Your task to perform on an android device: see sites visited before in the chrome app Image 0: 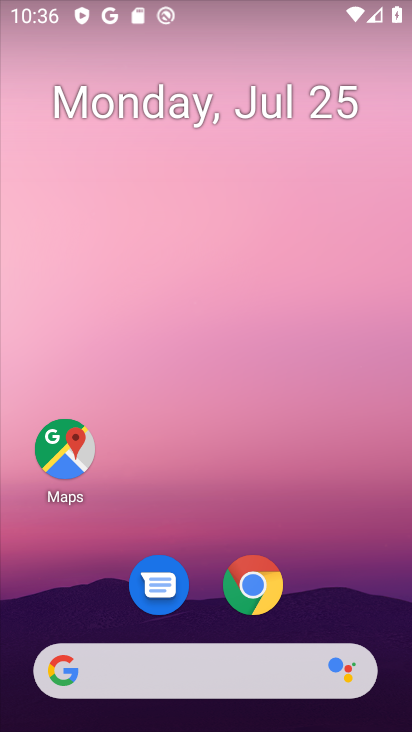
Step 0: click (256, 586)
Your task to perform on an android device: see sites visited before in the chrome app Image 1: 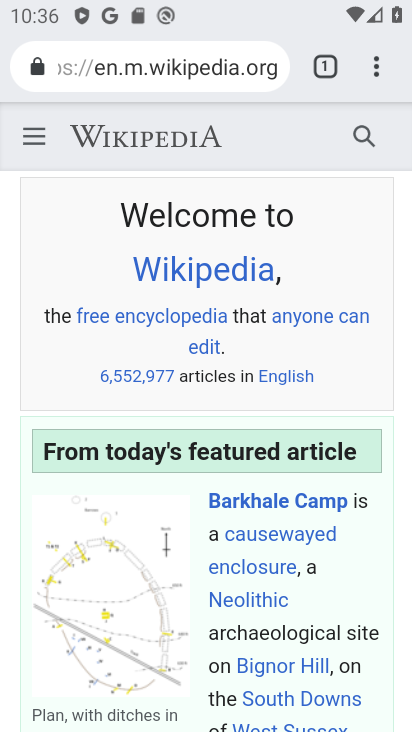
Step 1: click (372, 63)
Your task to perform on an android device: see sites visited before in the chrome app Image 2: 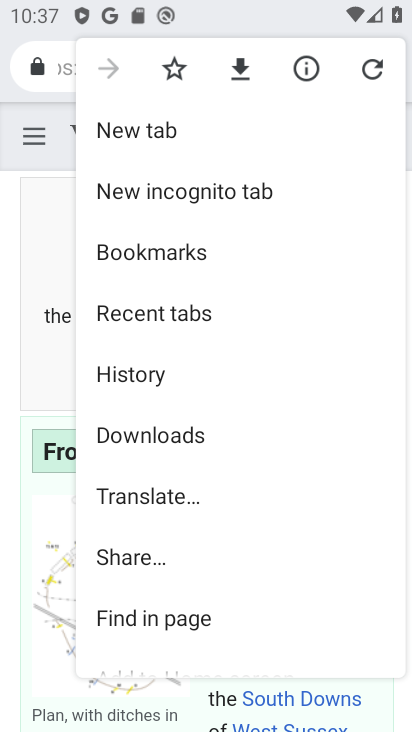
Step 2: click (184, 310)
Your task to perform on an android device: see sites visited before in the chrome app Image 3: 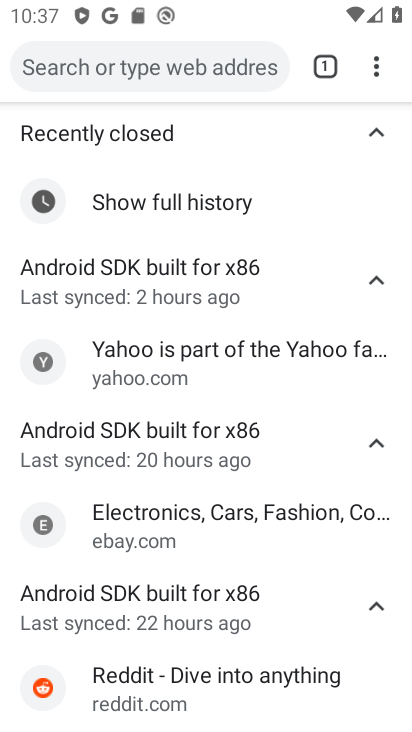
Step 3: task complete